Your task to perform on an android device: Show me recent news Image 0: 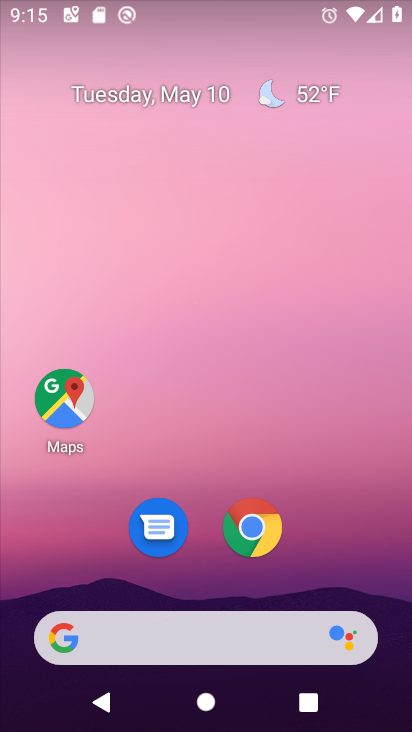
Step 0: click (256, 516)
Your task to perform on an android device: Show me recent news Image 1: 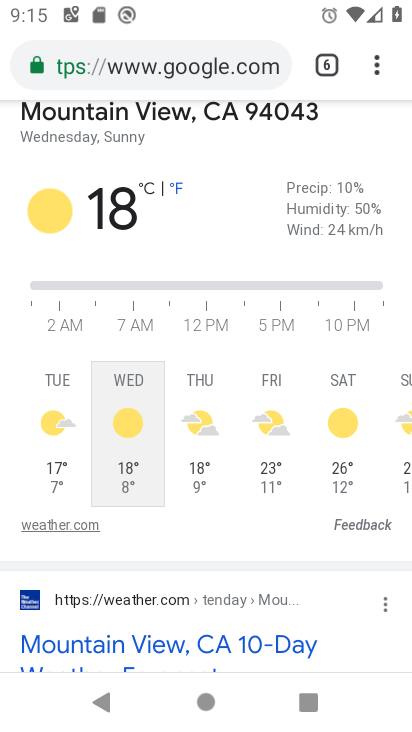
Step 1: click (330, 66)
Your task to perform on an android device: Show me recent news Image 2: 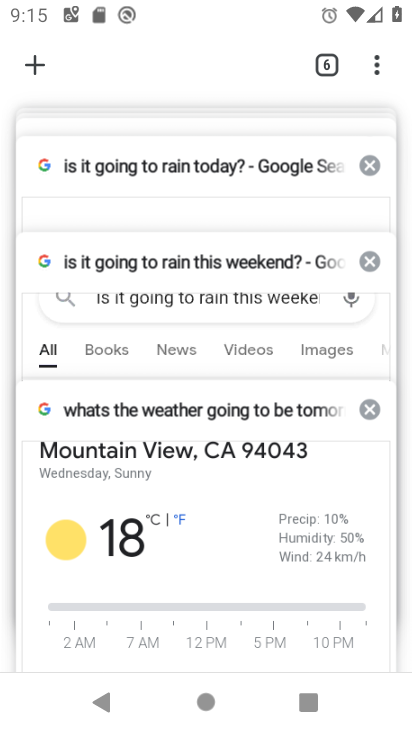
Step 2: drag from (199, 187) to (205, 518)
Your task to perform on an android device: Show me recent news Image 3: 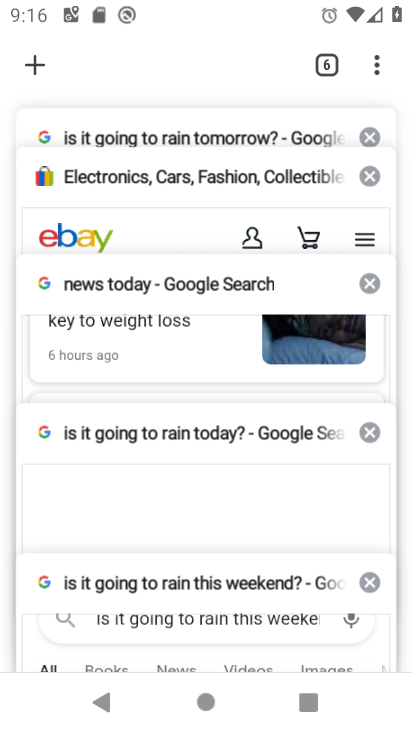
Step 3: click (162, 340)
Your task to perform on an android device: Show me recent news Image 4: 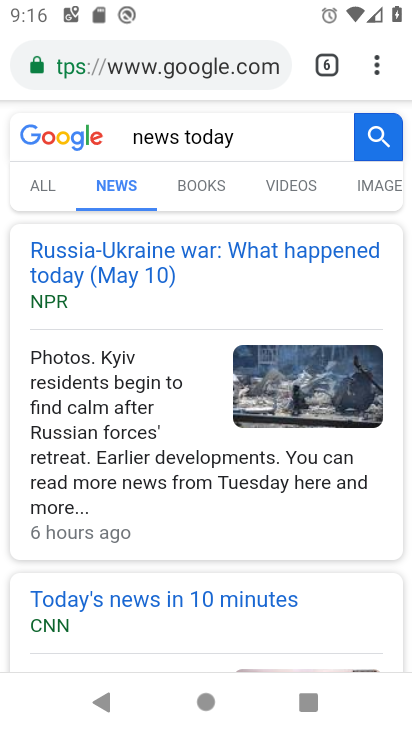
Step 4: drag from (187, 620) to (189, 294)
Your task to perform on an android device: Show me recent news Image 5: 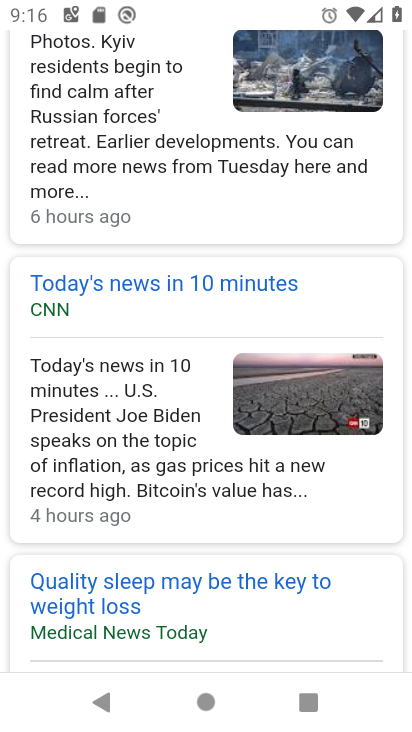
Step 5: drag from (164, 558) to (157, 276)
Your task to perform on an android device: Show me recent news Image 6: 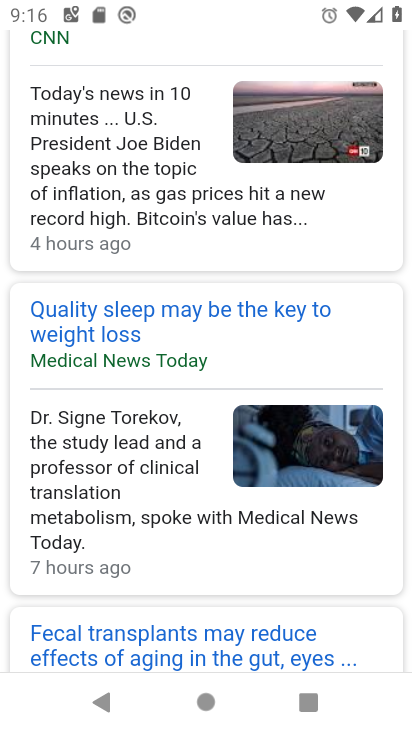
Step 6: drag from (105, 603) to (139, 330)
Your task to perform on an android device: Show me recent news Image 7: 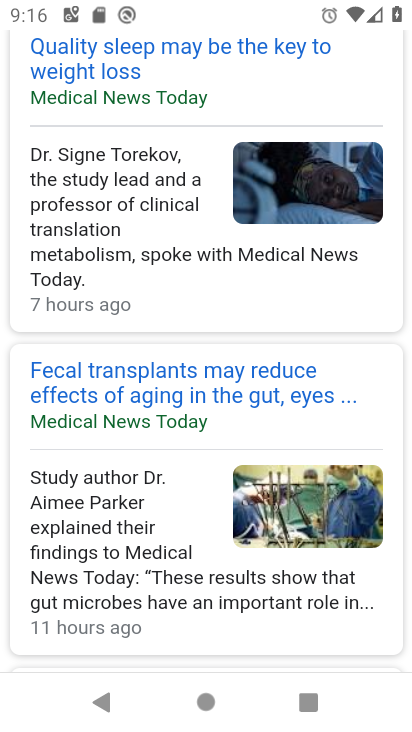
Step 7: drag from (248, 165) to (218, 598)
Your task to perform on an android device: Show me recent news Image 8: 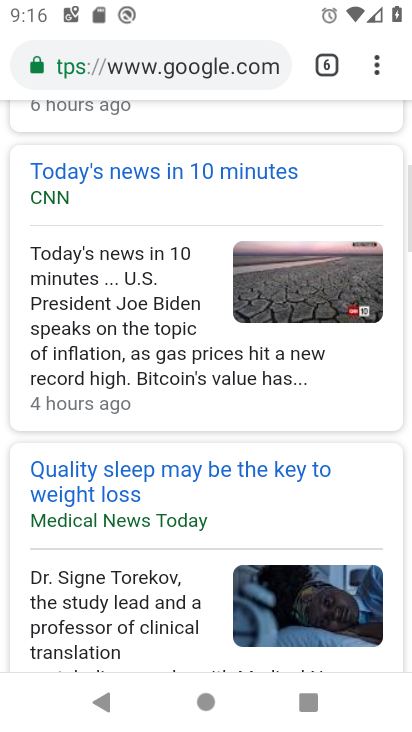
Step 8: drag from (186, 198) to (183, 424)
Your task to perform on an android device: Show me recent news Image 9: 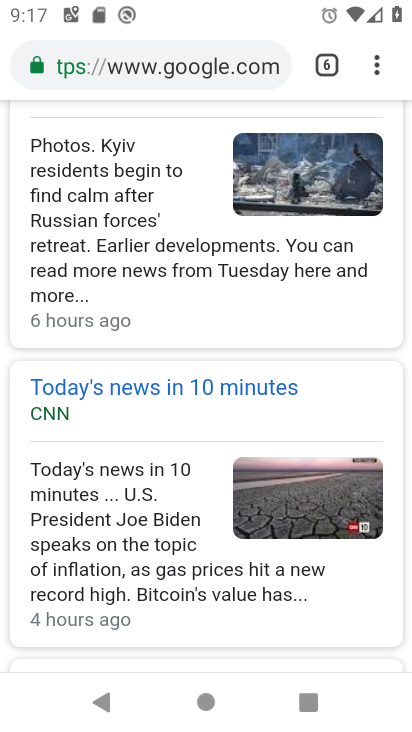
Step 9: press home button
Your task to perform on an android device: Show me recent news Image 10: 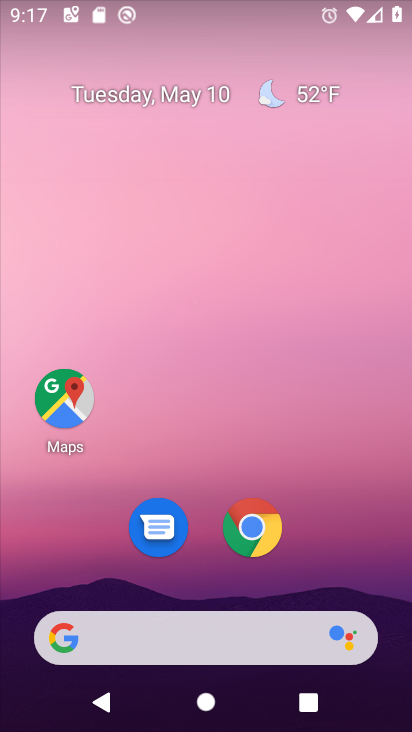
Step 10: click (250, 530)
Your task to perform on an android device: Show me recent news Image 11: 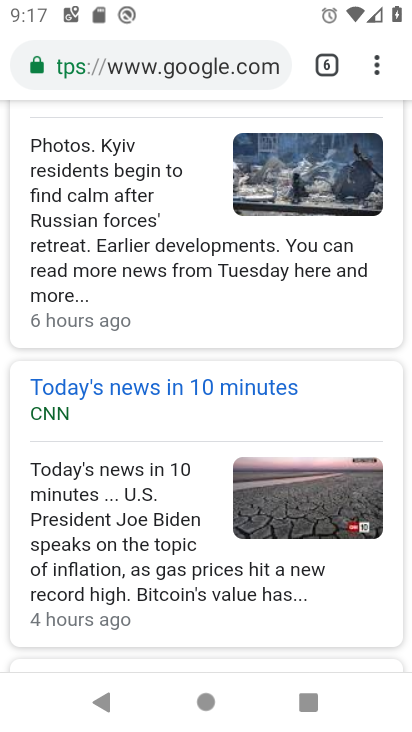
Step 11: task complete